Your task to perform on an android device: clear history in the chrome app Image 0: 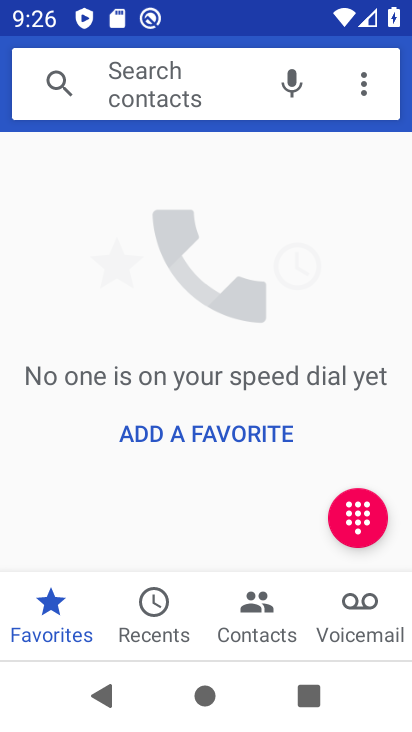
Step 0: press home button
Your task to perform on an android device: clear history in the chrome app Image 1: 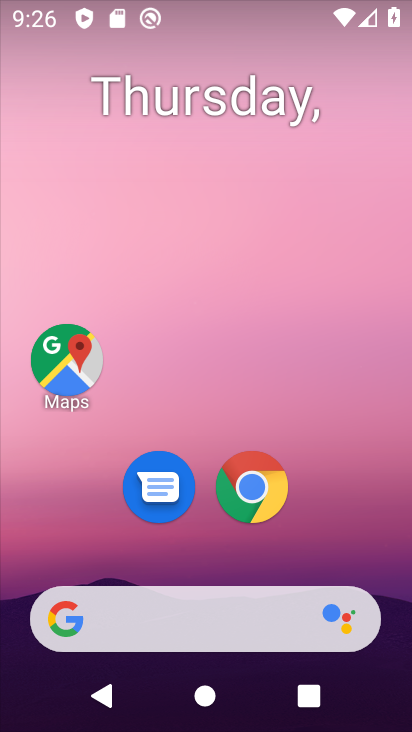
Step 1: click (255, 487)
Your task to perform on an android device: clear history in the chrome app Image 2: 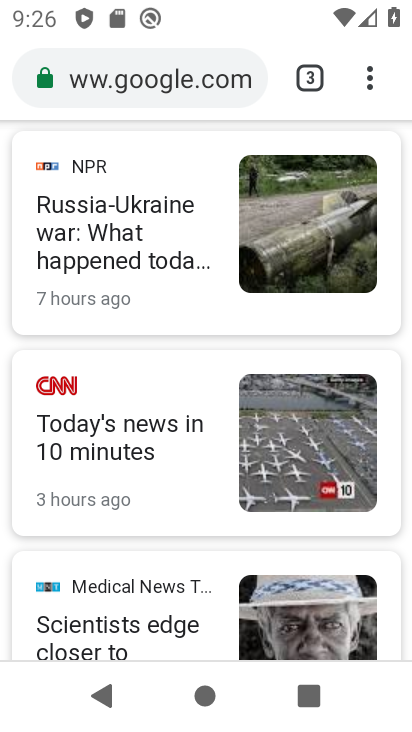
Step 2: click (372, 85)
Your task to perform on an android device: clear history in the chrome app Image 3: 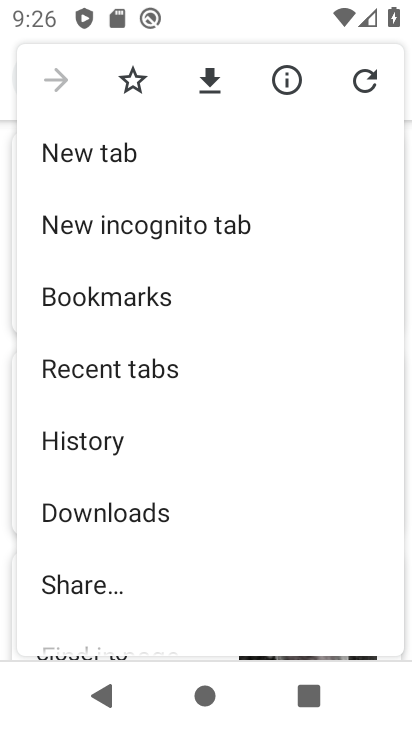
Step 3: click (86, 442)
Your task to perform on an android device: clear history in the chrome app Image 4: 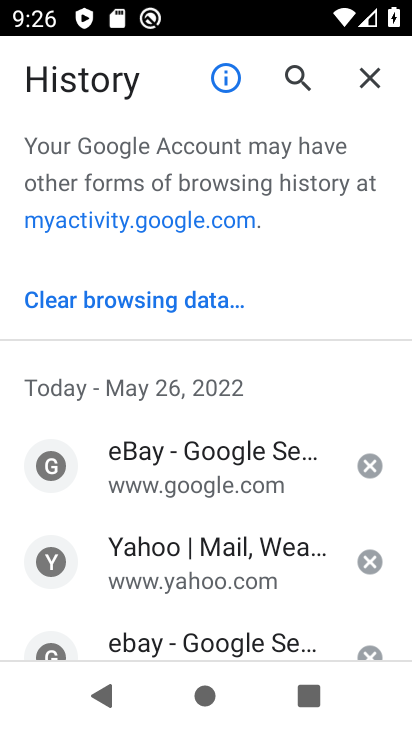
Step 4: click (110, 301)
Your task to perform on an android device: clear history in the chrome app Image 5: 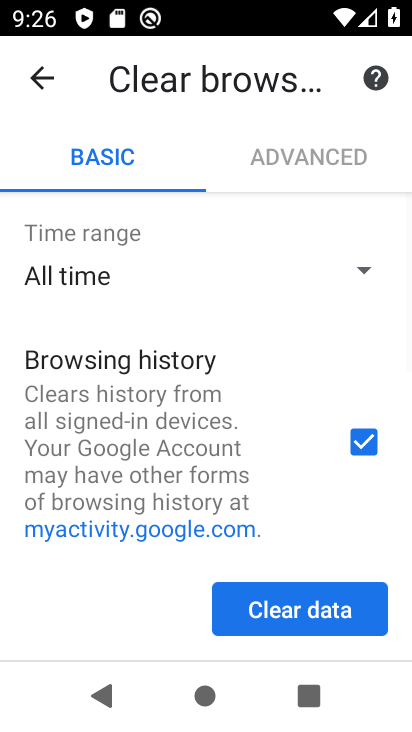
Step 5: click (297, 613)
Your task to perform on an android device: clear history in the chrome app Image 6: 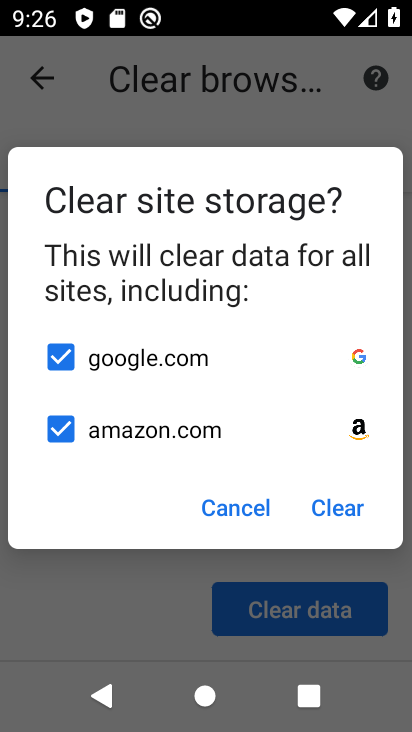
Step 6: click (334, 505)
Your task to perform on an android device: clear history in the chrome app Image 7: 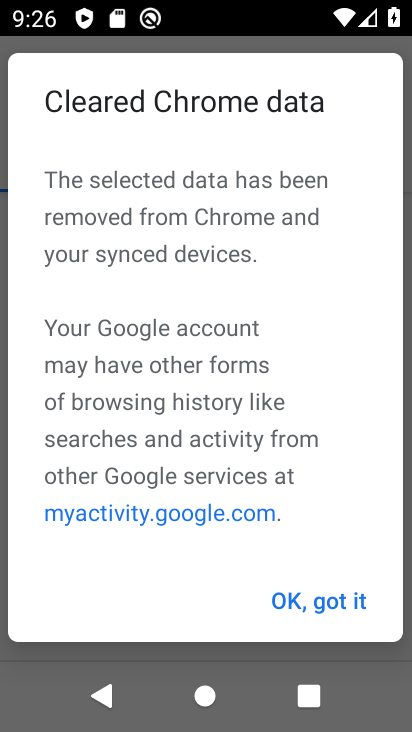
Step 7: click (316, 608)
Your task to perform on an android device: clear history in the chrome app Image 8: 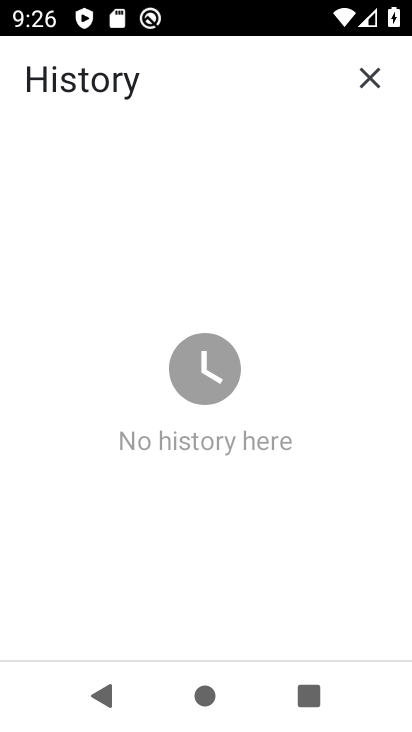
Step 8: task complete